Your task to perform on an android device: Go to Google Image 0: 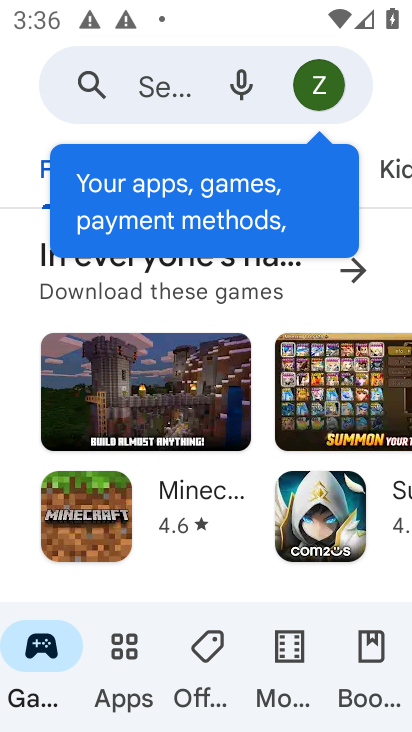
Step 0: press home button
Your task to perform on an android device: Go to Google Image 1: 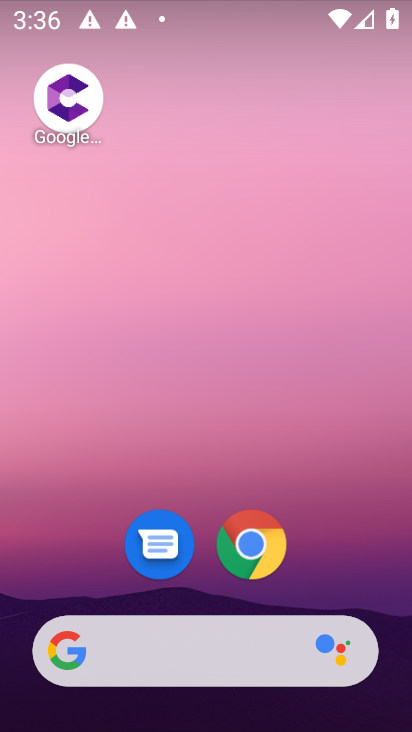
Step 1: drag from (191, 620) to (178, 101)
Your task to perform on an android device: Go to Google Image 2: 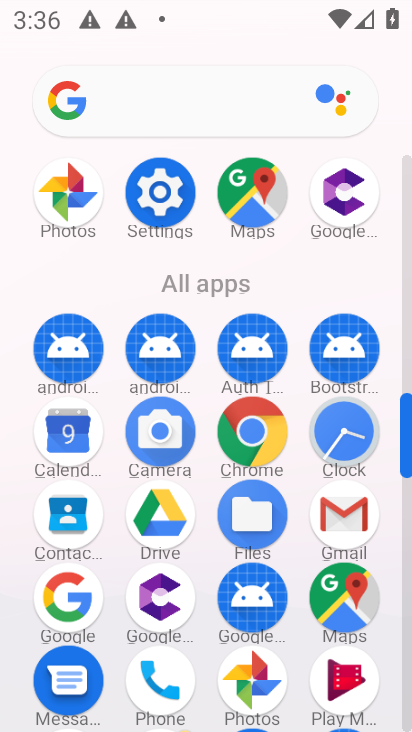
Step 2: click (64, 605)
Your task to perform on an android device: Go to Google Image 3: 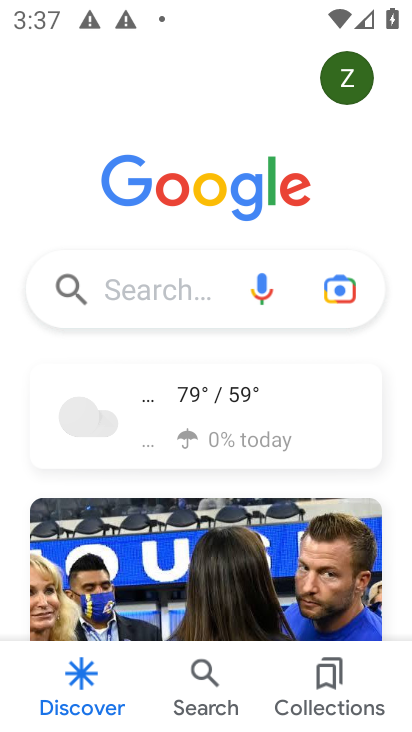
Step 3: task complete